Your task to perform on an android device: turn on javascript in the chrome app Image 0: 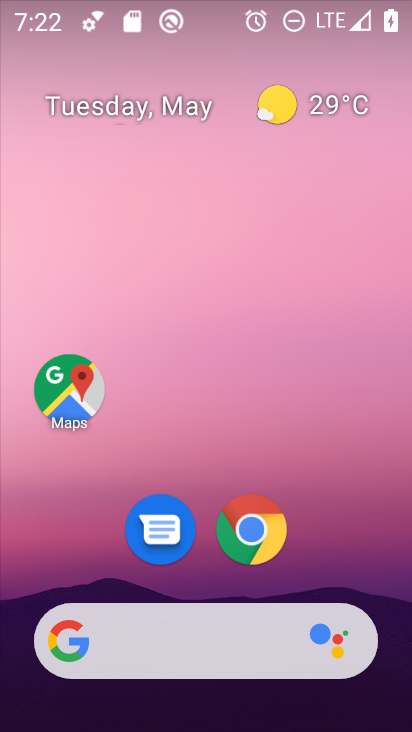
Step 0: drag from (389, 629) to (249, 67)
Your task to perform on an android device: turn on javascript in the chrome app Image 1: 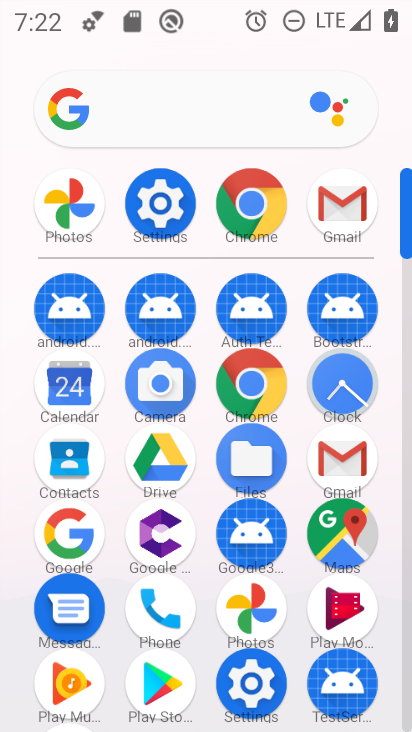
Step 1: click (270, 203)
Your task to perform on an android device: turn on javascript in the chrome app Image 2: 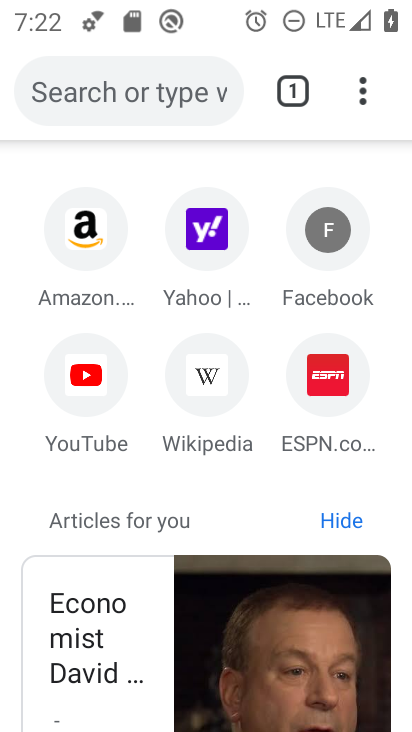
Step 2: click (372, 84)
Your task to perform on an android device: turn on javascript in the chrome app Image 3: 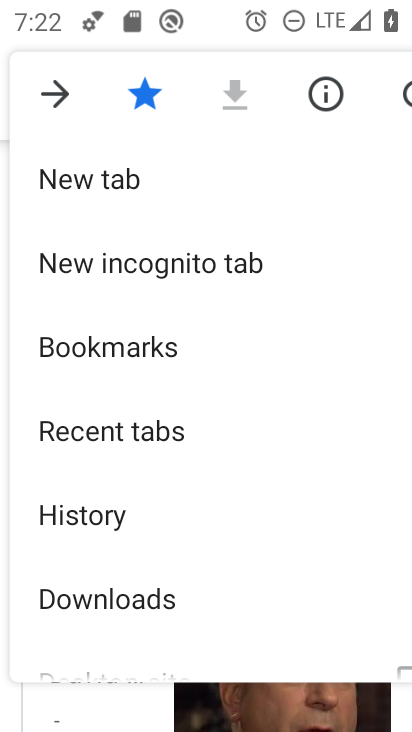
Step 3: drag from (101, 586) to (78, 29)
Your task to perform on an android device: turn on javascript in the chrome app Image 4: 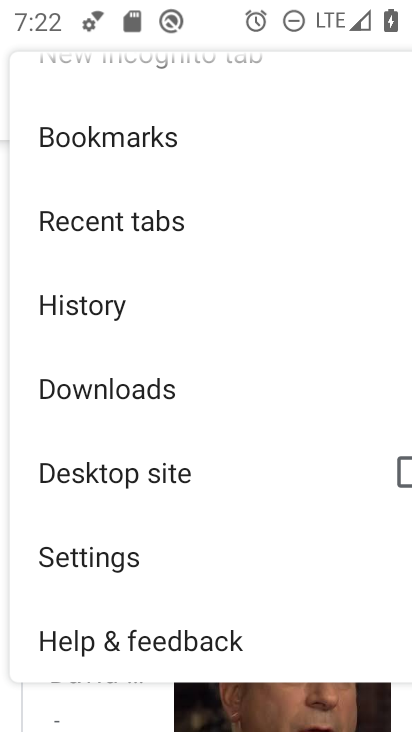
Step 4: click (106, 564)
Your task to perform on an android device: turn on javascript in the chrome app Image 5: 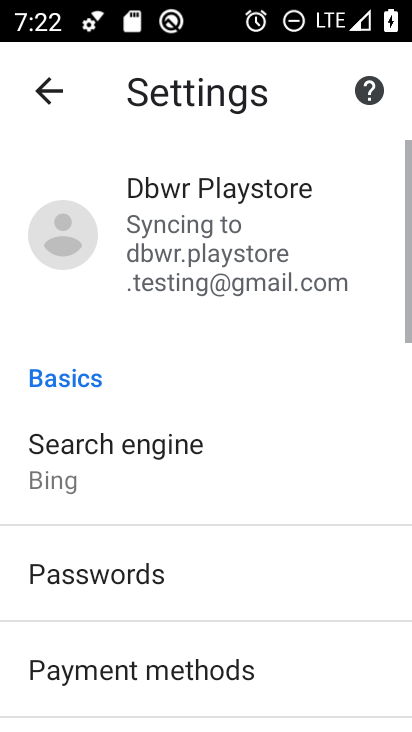
Step 5: drag from (128, 599) to (171, 129)
Your task to perform on an android device: turn on javascript in the chrome app Image 6: 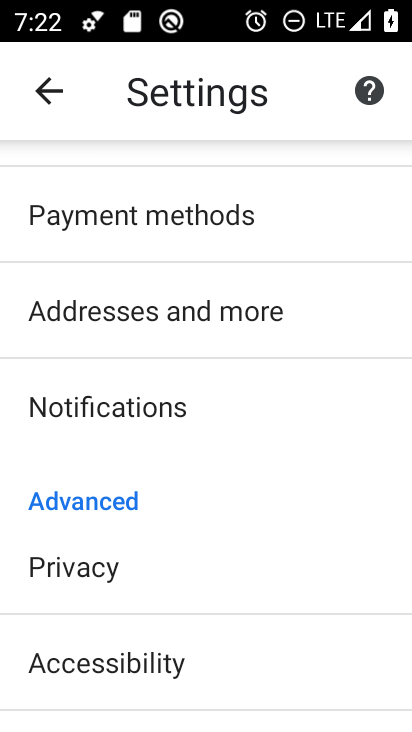
Step 6: drag from (140, 674) to (185, 228)
Your task to perform on an android device: turn on javascript in the chrome app Image 7: 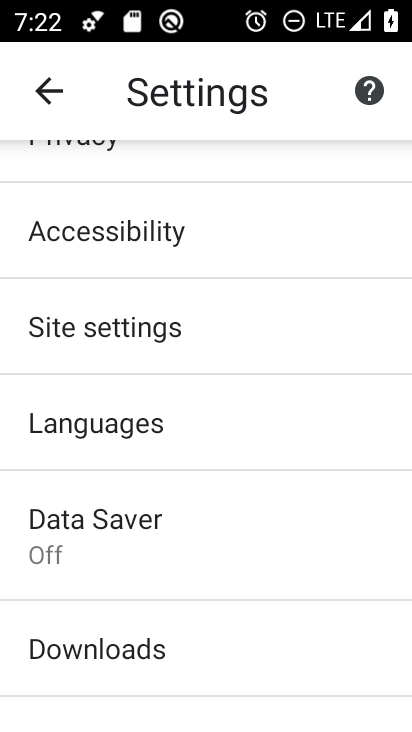
Step 7: click (164, 348)
Your task to perform on an android device: turn on javascript in the chrome app Image 8: 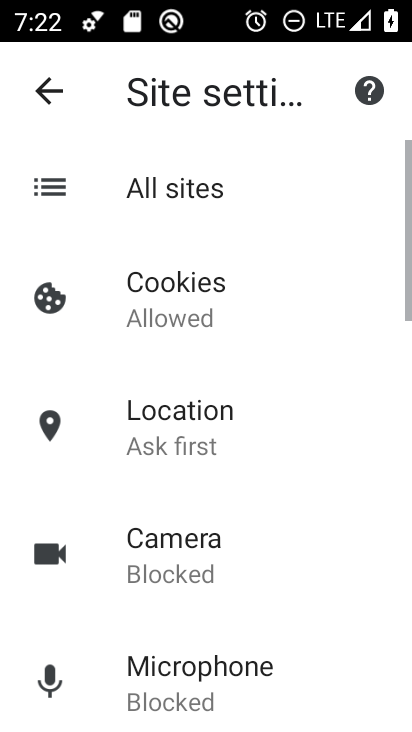
Step 8: drag from (157, 699) to (186, 202)
Your task to perform on an android device: turn on javascript in the chrome app Image 9: 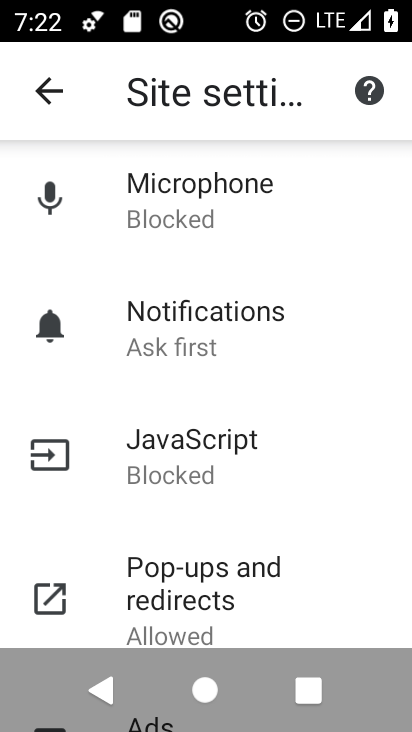
Step 9: click (239, 472)
Your task to perform on an android device: turn on javascript in the chrome app Image 10: 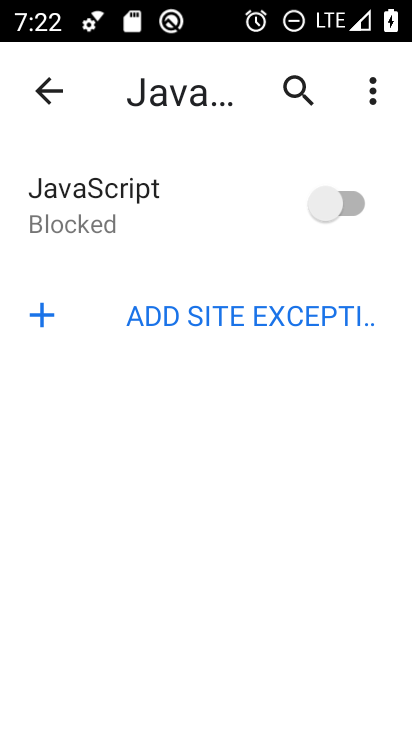
Step 10: click (248, 217)
Your task to perform on an android device: turn on javascript in the chrome app Image 11: 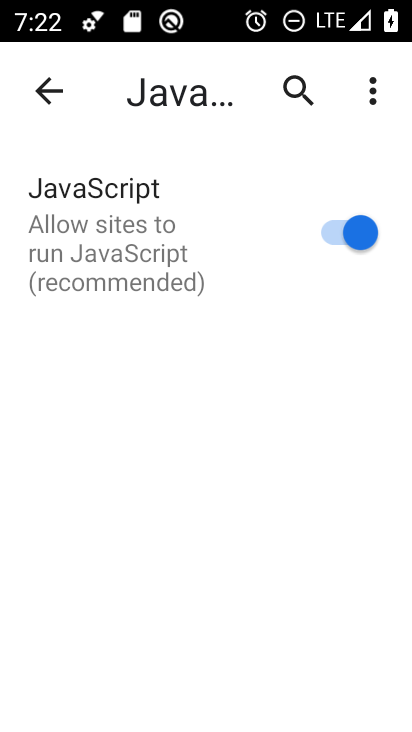
Step 11: task complete